Your task to perform on an android device: Go to eBay Image 0: 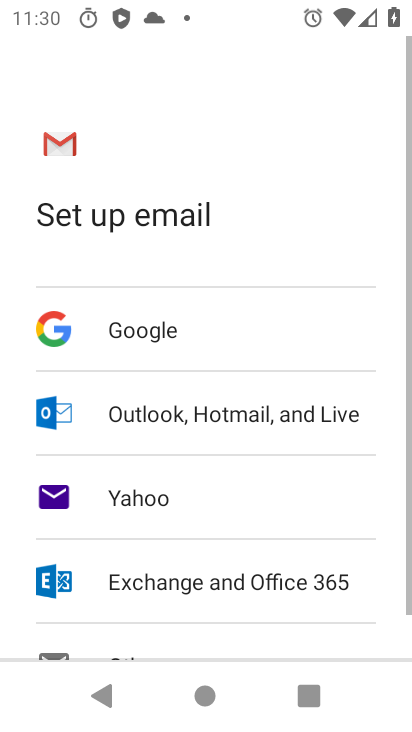
Step 0: press home button
Your task to perform on an android device: Go to eBay Image 1: 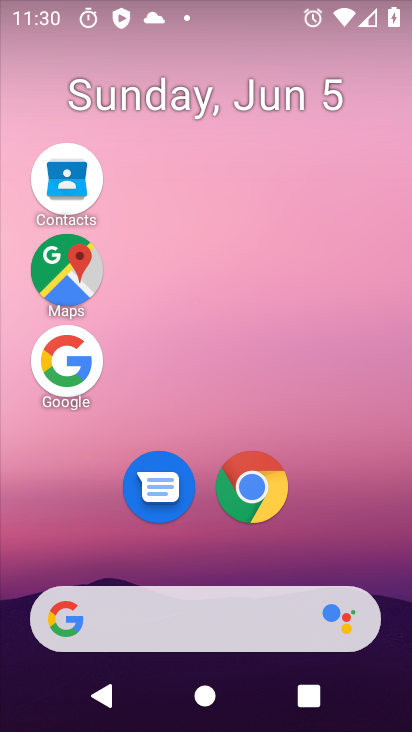
Step 1: click (274, 476)
Your task to perform on an android device: Go to eBay Image 2: 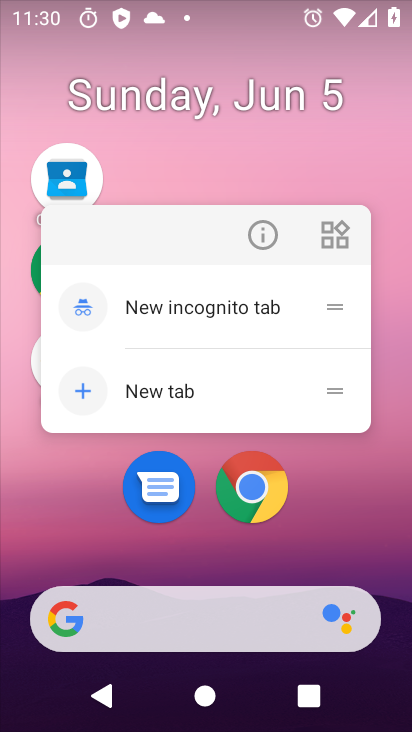
Step 2: click (270, 476)
Your task to perform on an android device: Go to eBay Image 3: 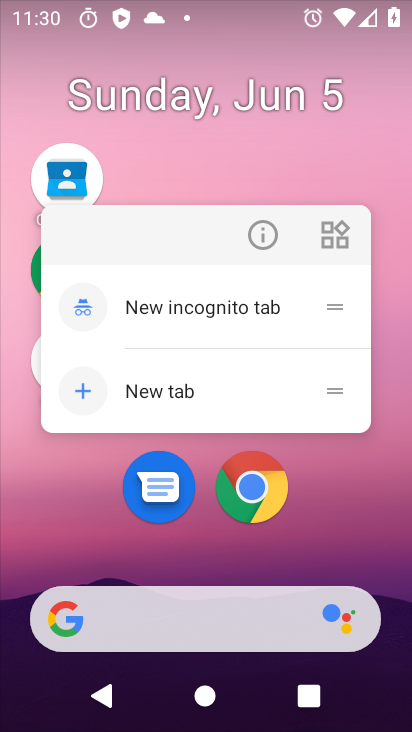
Step 3: click (258, 486)
Your task to perform on an android device: Go to eBay Image 4: 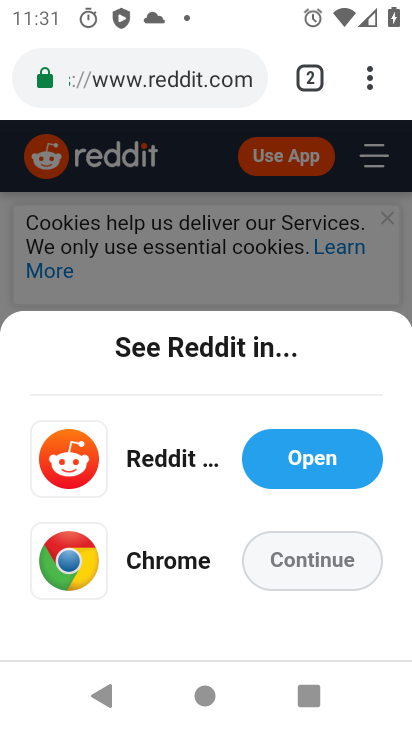
Step 4: click (210, 80)
Your task to perform on an android device: Go to eBay Image 5: 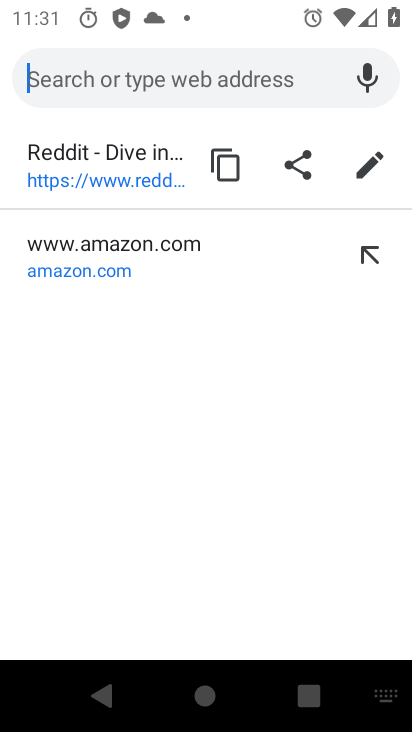
Step 5: type "ebay"
Your task to perform on an android device: Go to eBay Image 6: 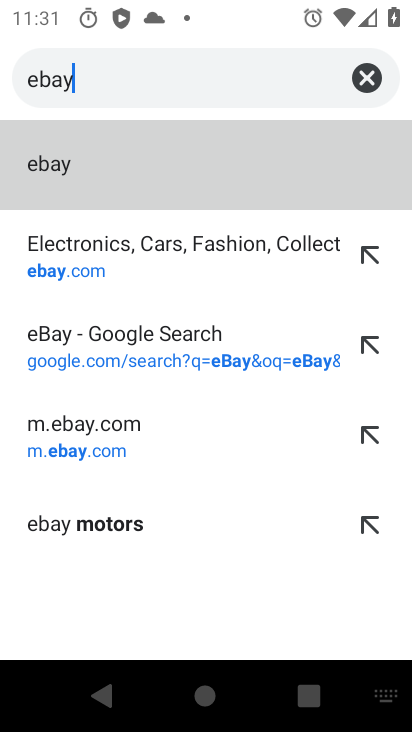
Step 6: click (181, 270)
Your task to perform on an android device: Go to eBay Image 7: 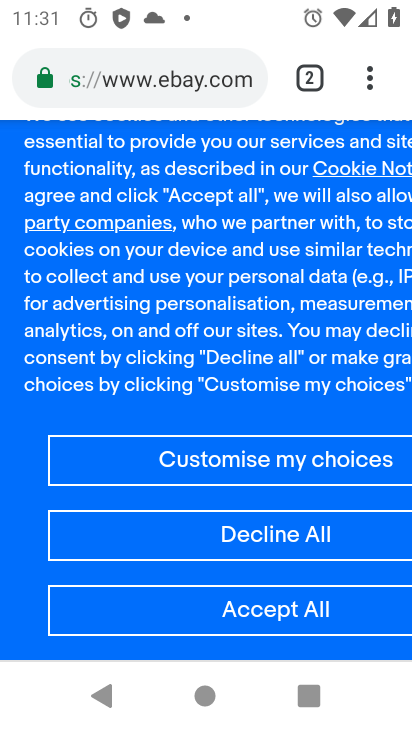
Step 7: task complete